Your task to perform on an android device: open a new tab in the chrome app Image 0: 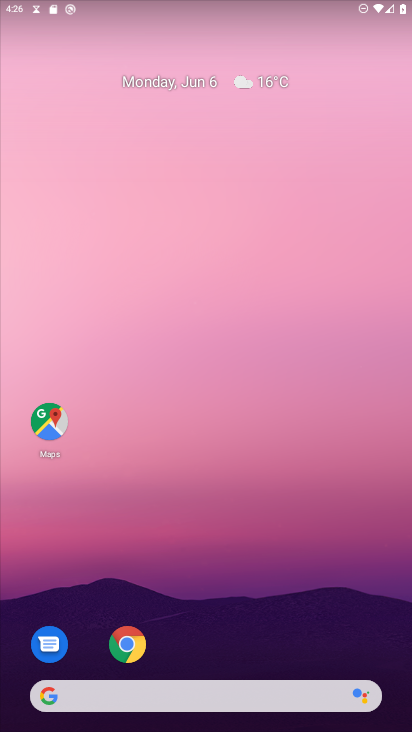
Step 0: click (117, 640)
Your task to perform on an android device: open a new tab in the chrome app Image 1: 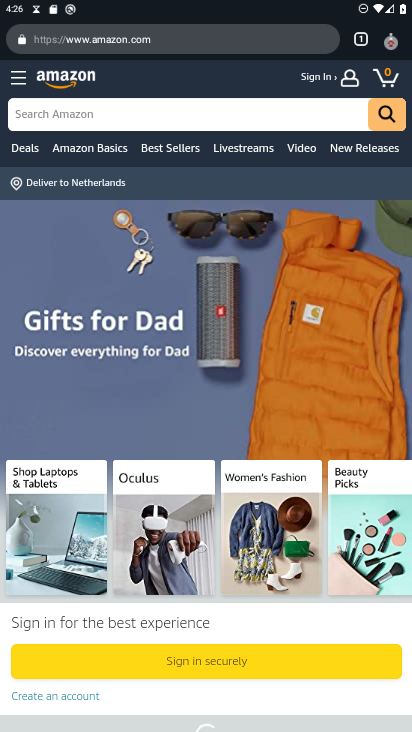
Step 1: click (387, 42)
Your task to perform on an android device: open a new tab in the chrome app Image 2: 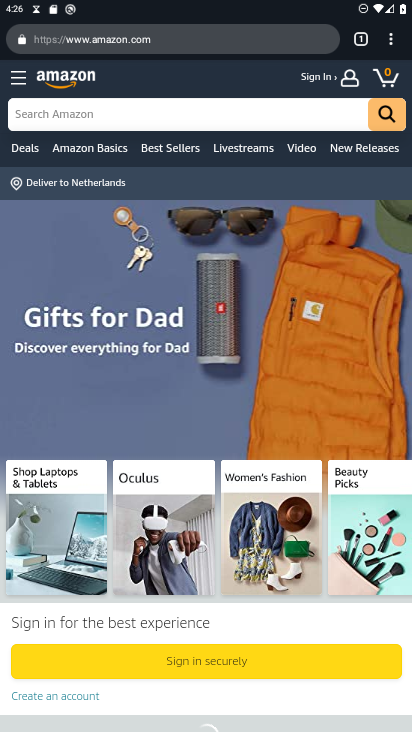
Step 2: click (391, 37)
Your task to perform on an android device: open a new tab in the chrome app Image 3: 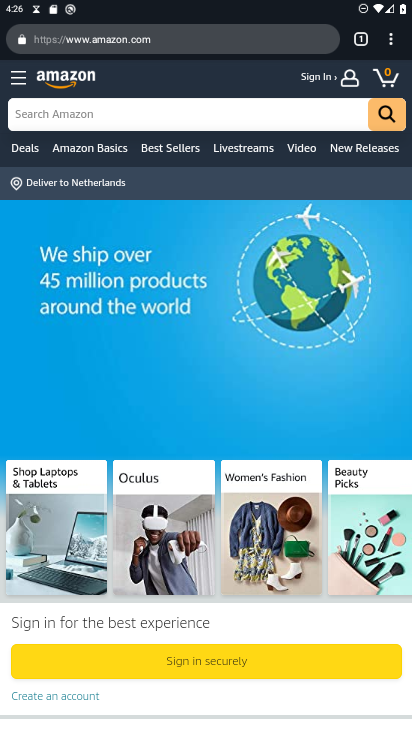
Step 3: click (395, 42)
Your task to perform on an android device: open a new tab in the chrome app Image 4: 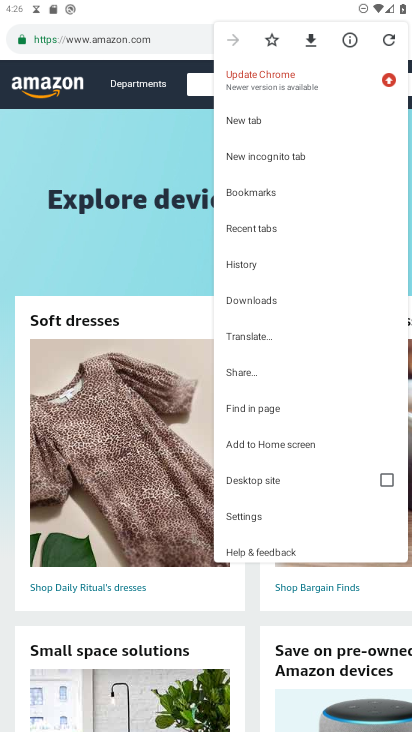
Step 4: click (265, 129)
Your task to perform on an android device: open a new tab in the chrome app Image 5: 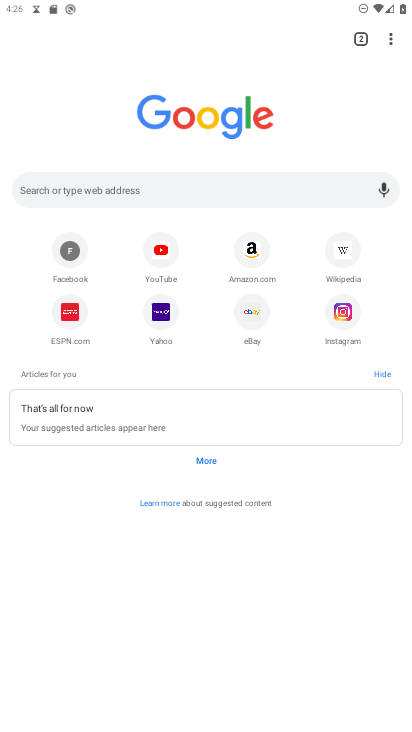
Step 5: task complete